Your task to perform on an android device: turn off location Image 0: 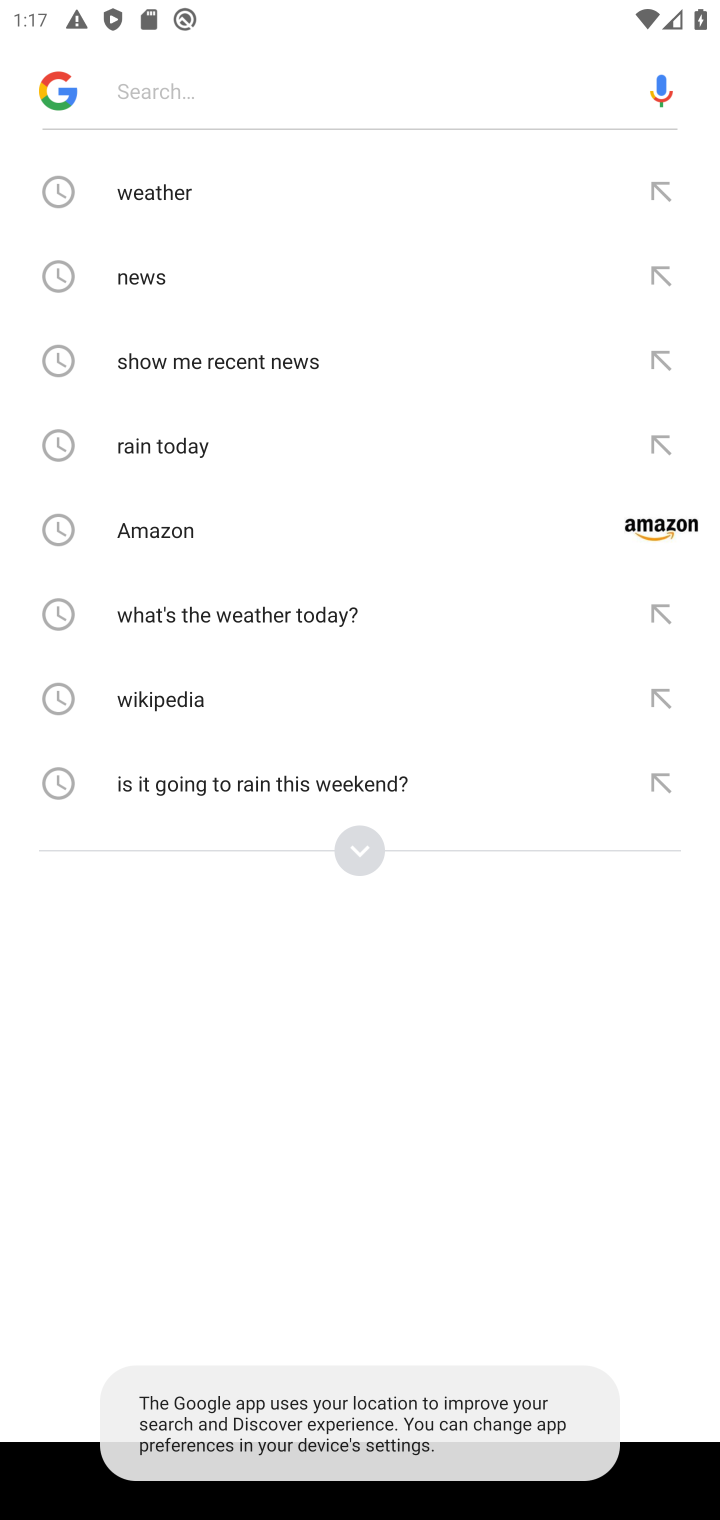
Step 0: press home button
Your task to perform on an android device: turn off location Image 1: 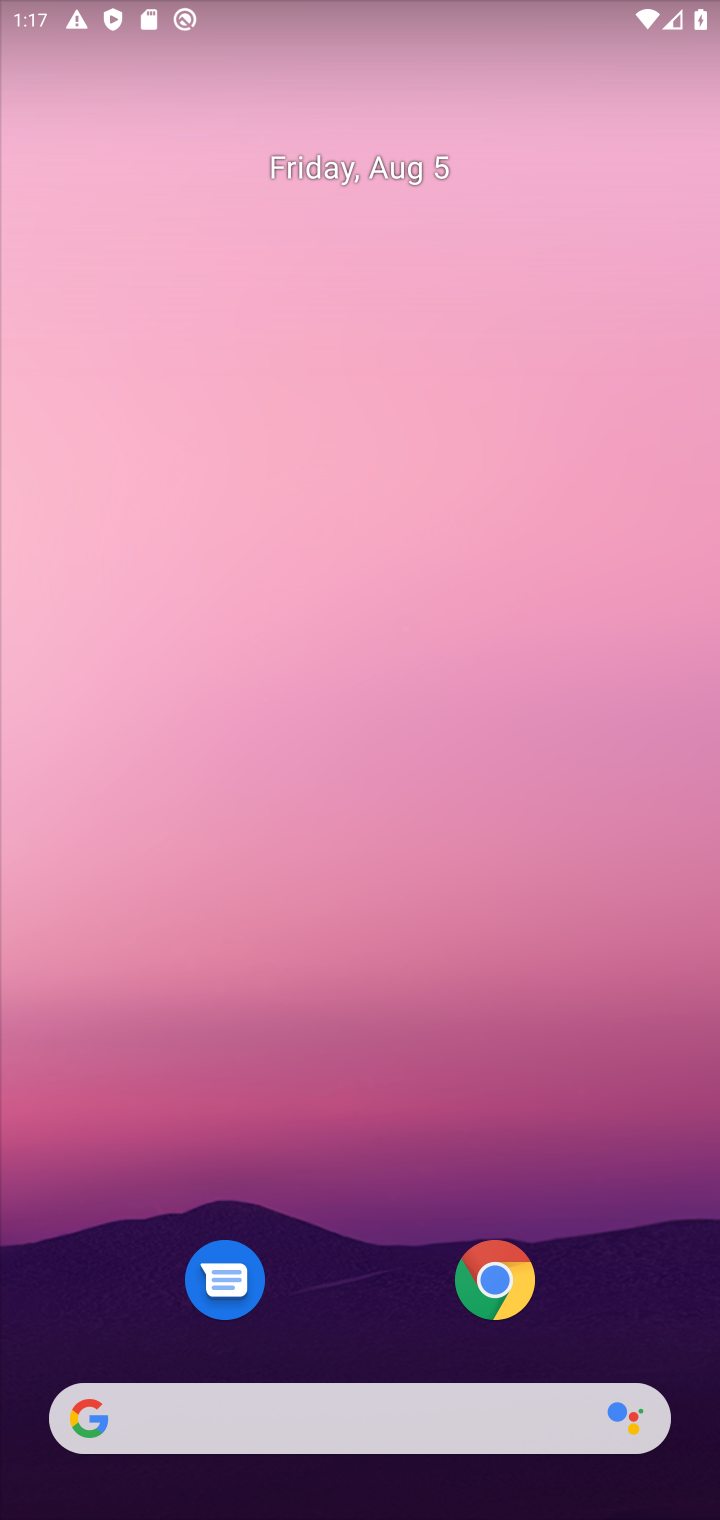
Step 1: drag from (382, 87) to (445, 48)
Your task to perform on an android device: turn off location Image 2: 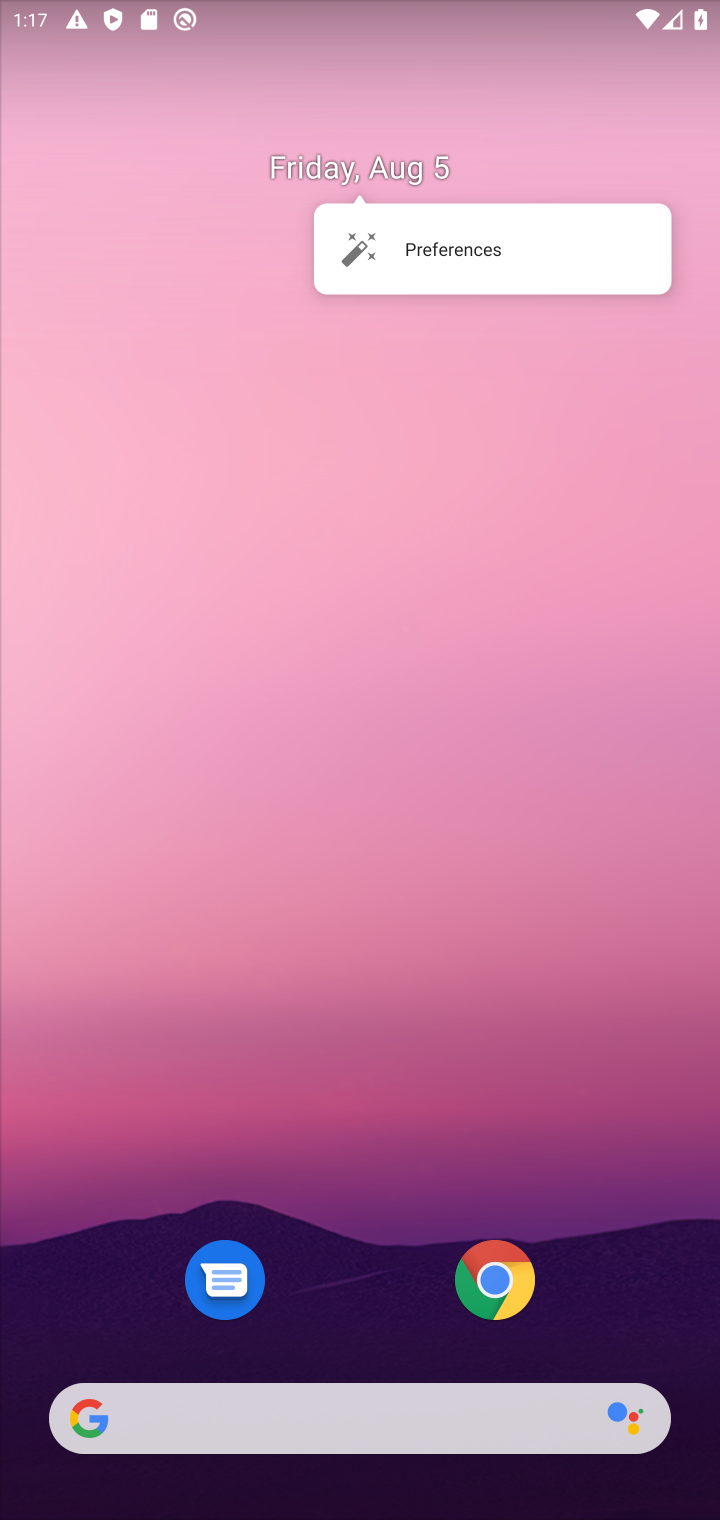
Step 2: click (55, 261)
Your task to perform on an android device: turn off location Image 3: 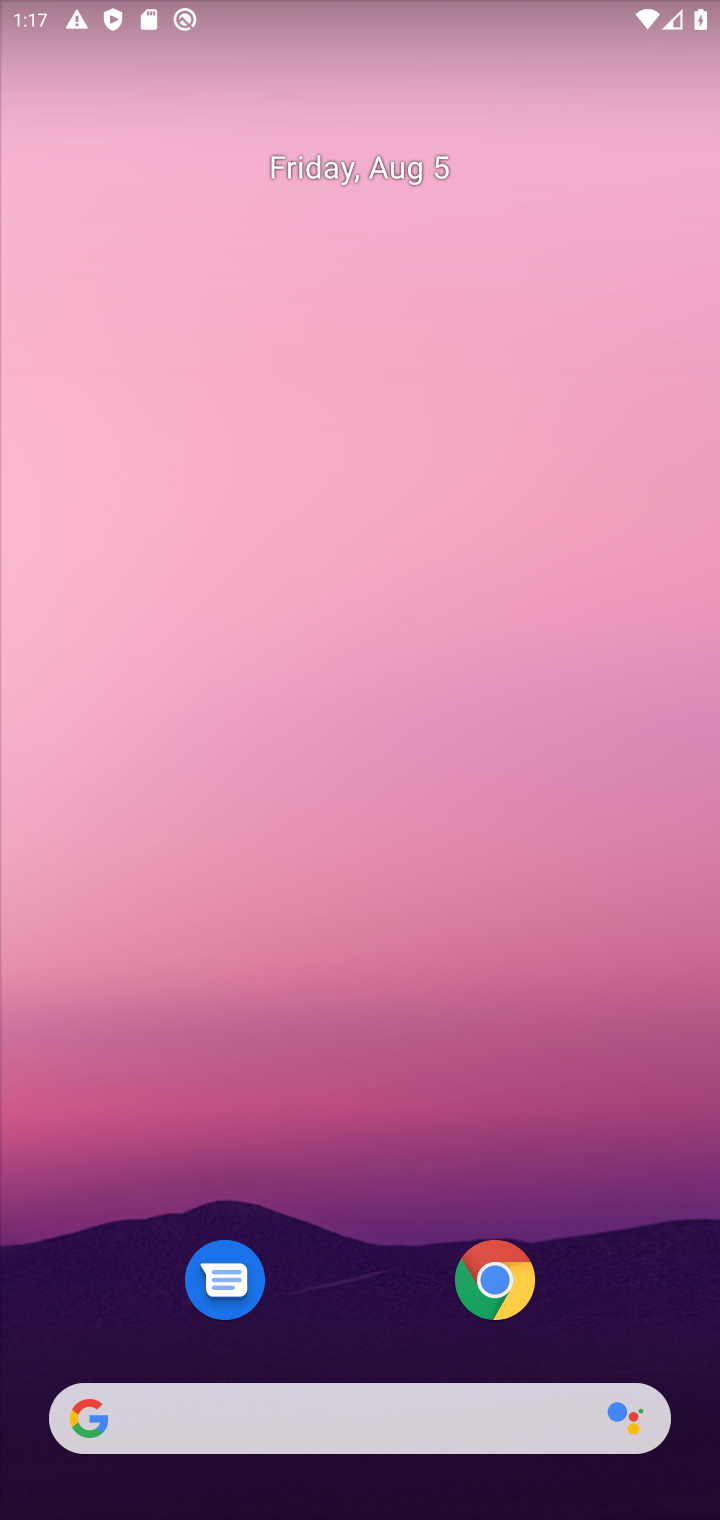
Step 3: click (379, 379)
Your task to perform on an android device: turn off location Image 4: 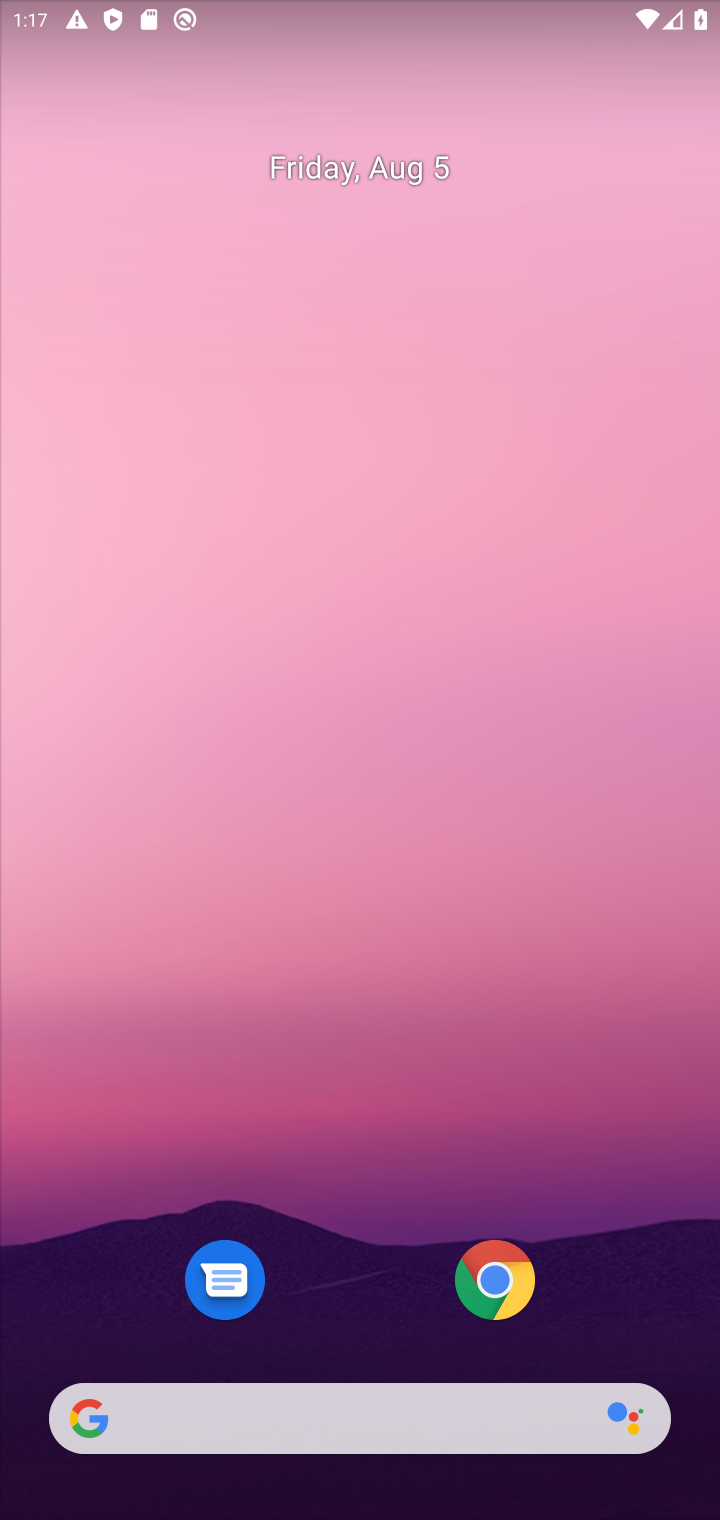
Step 4: drag from (328, 1190) to (391, 414)
Your task to perform on an android device: turn off location Image 5: 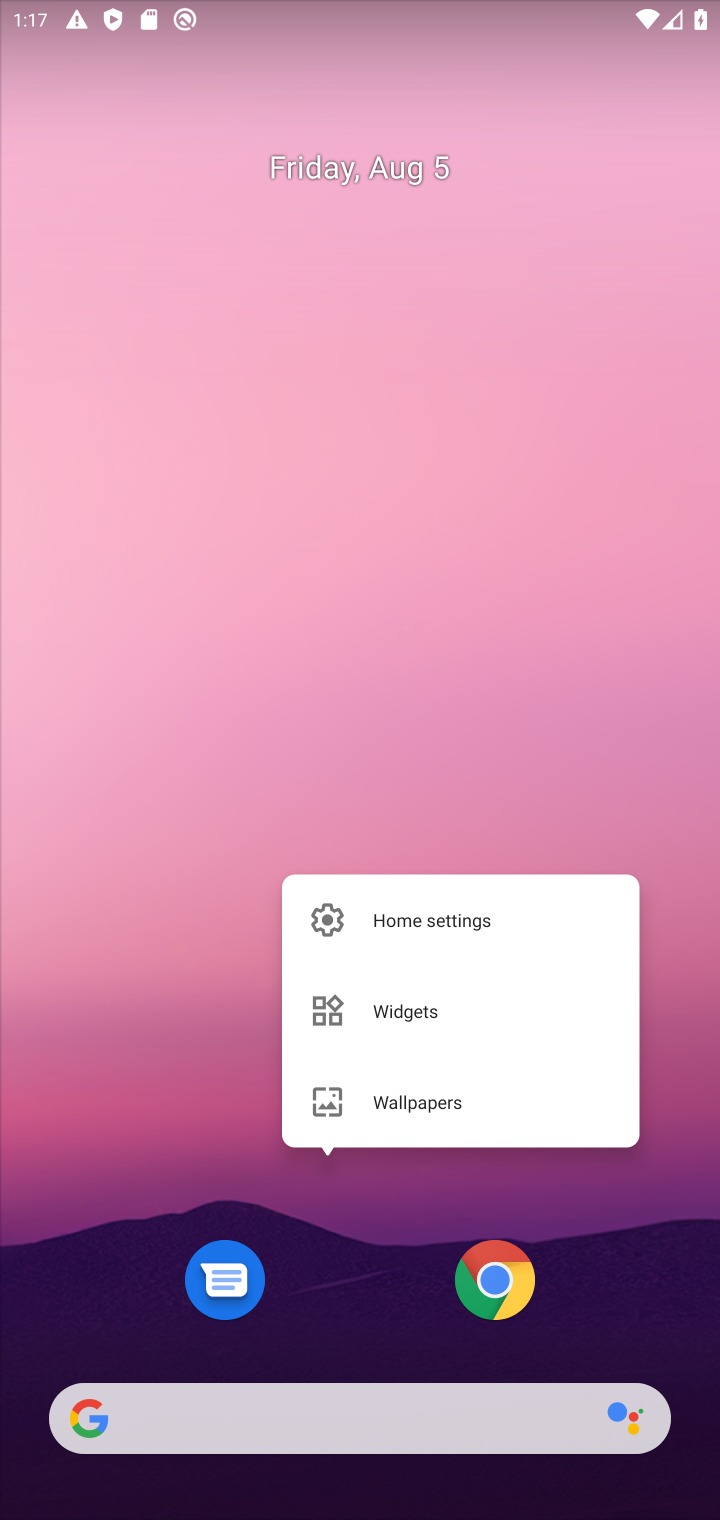
Step 5: click (195, 690)
Your task to perform on an android device: turn off location Image 6: 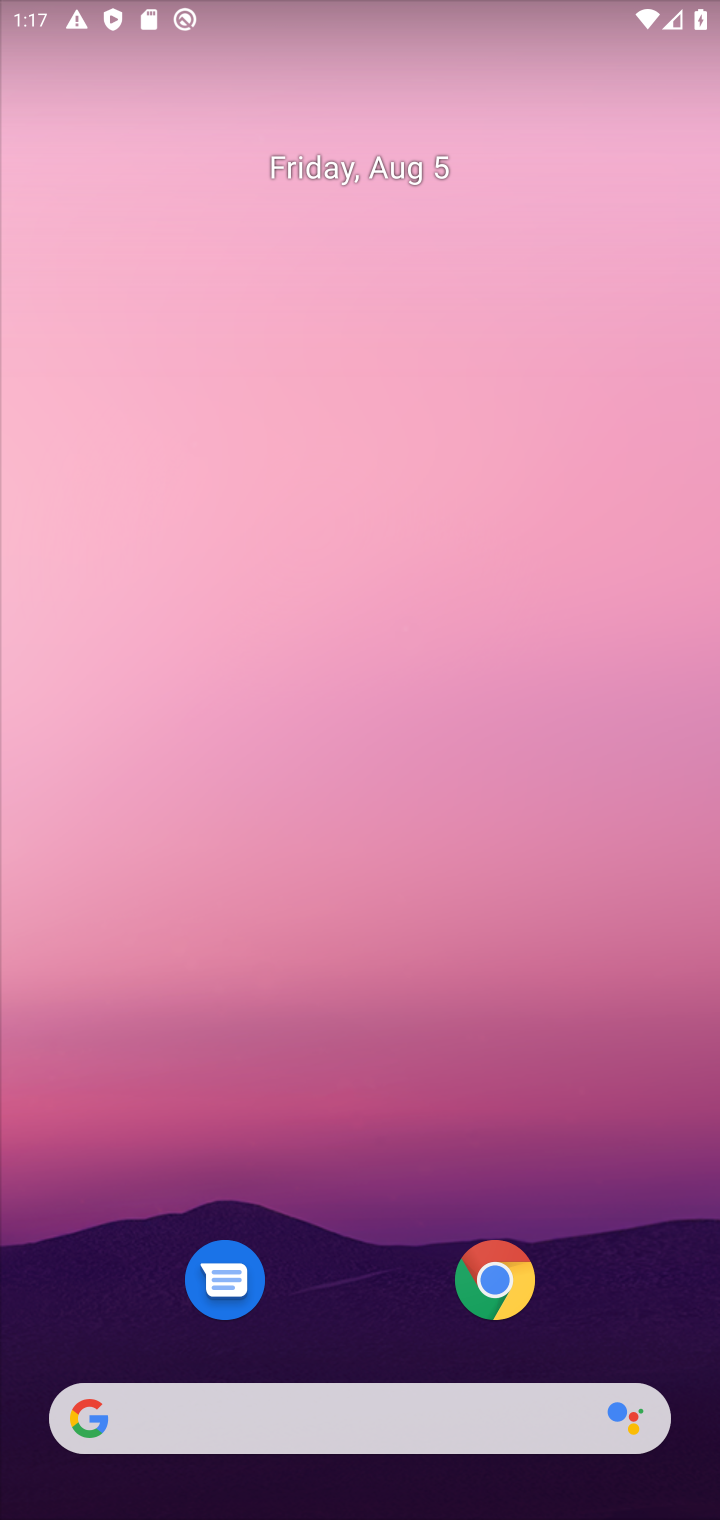
Step 6: drag from (355, 446) to (364, 293)
Your task to perform on an android device: turn off location Image 7: 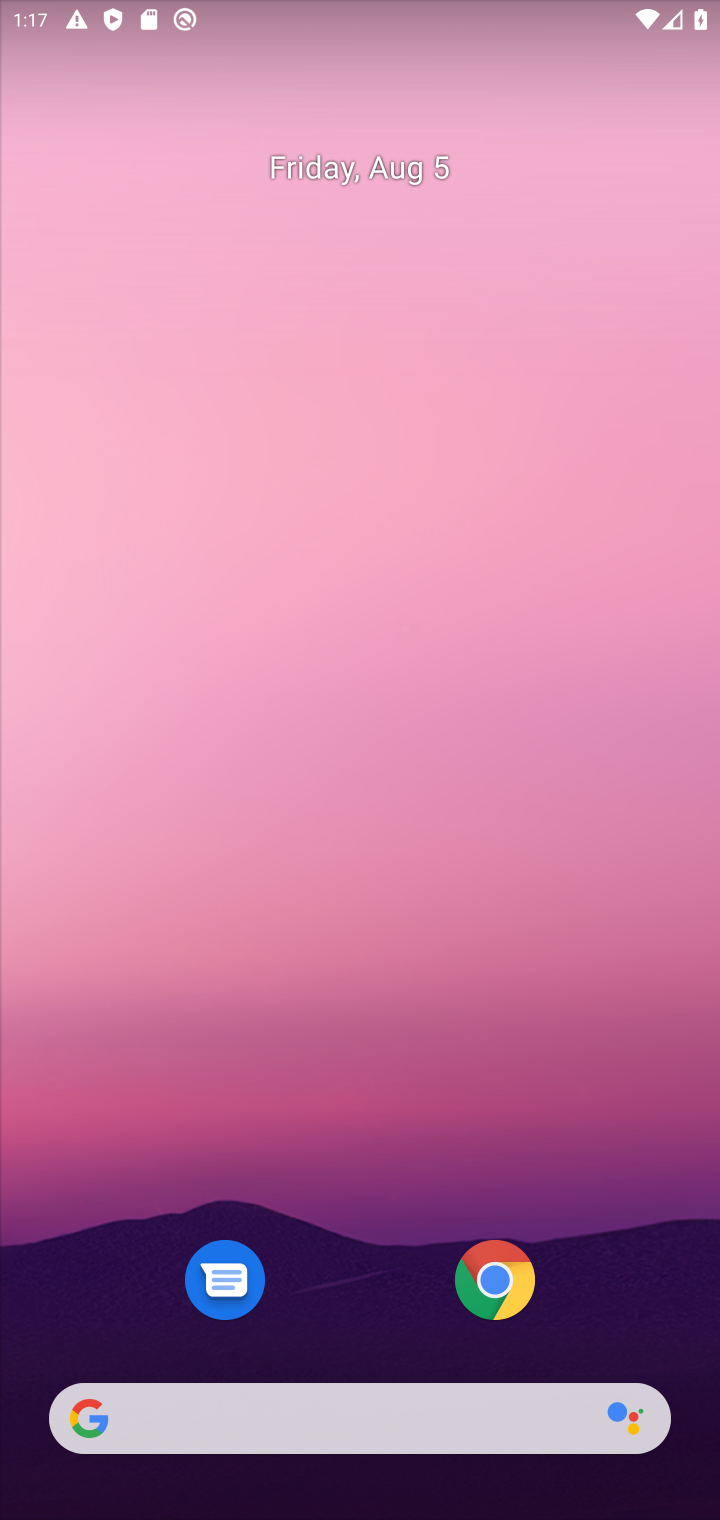
Step 7: drag from (363, 1030) to (381, 182)
Your task to perform on an android device: turn off location Image 8: 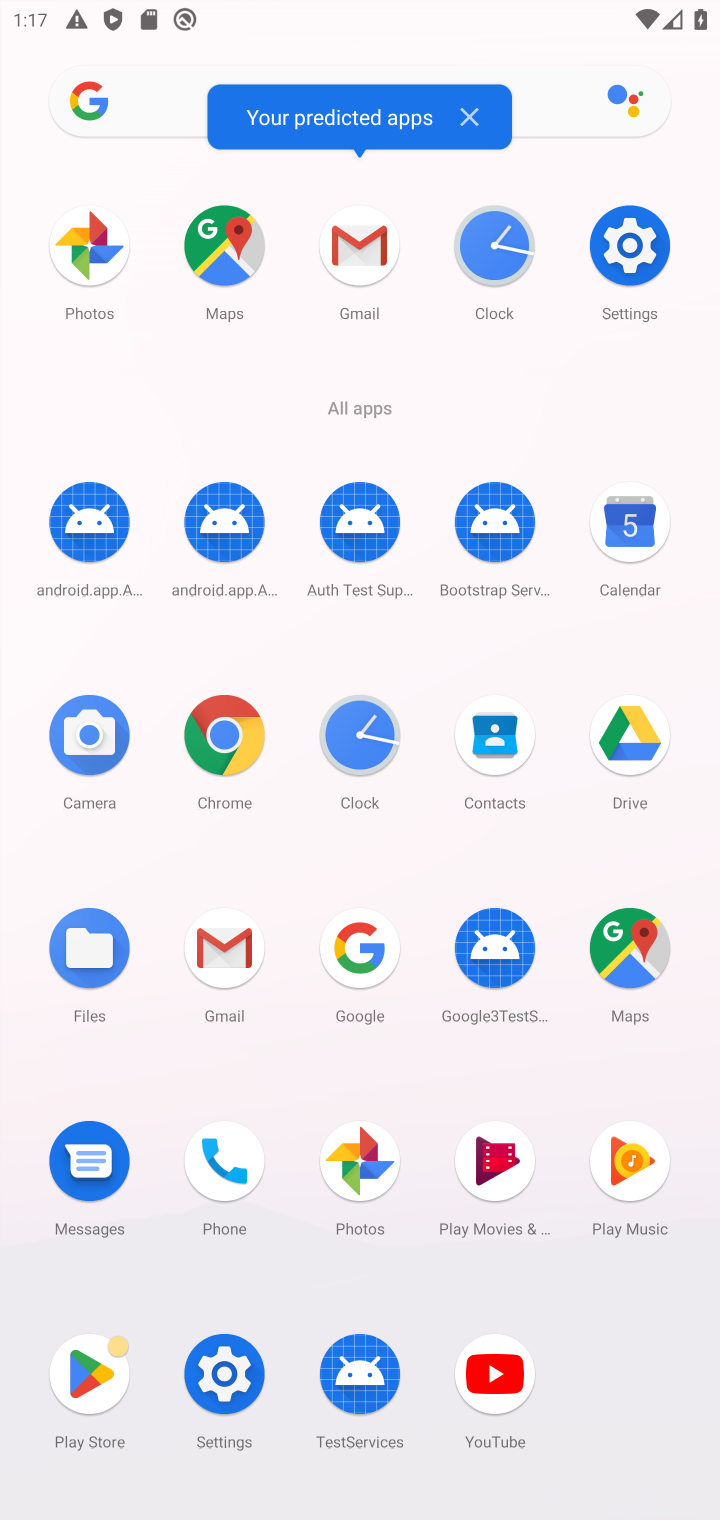
Step 8: click (622, 251)
Your task to perform on an android device: turn off location Image 9: 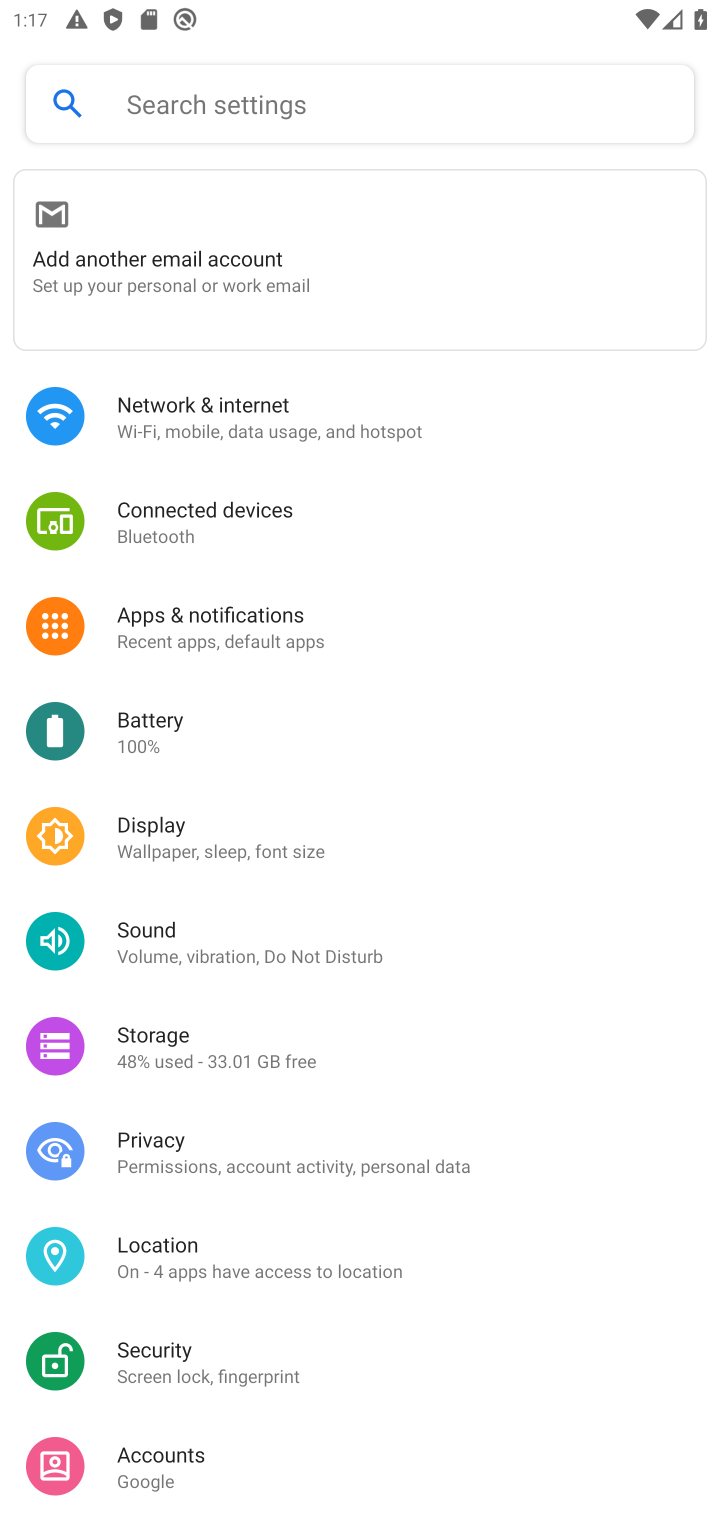
Step 9: click (186, 1241)
Your task to perform on an android device: turn off location Image 10: 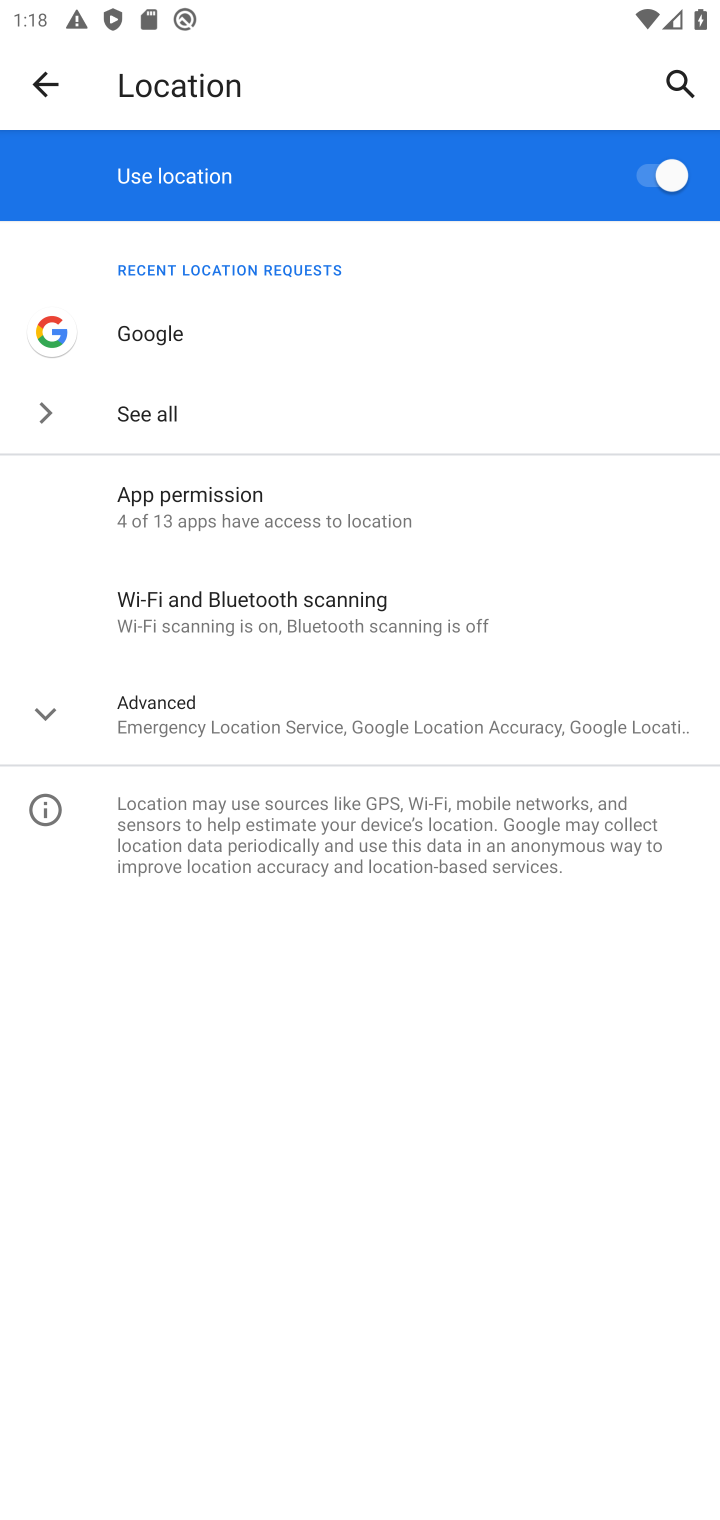
Step 10: click (651, 181)
Your task to perform on an android device: turn off location Image 11: 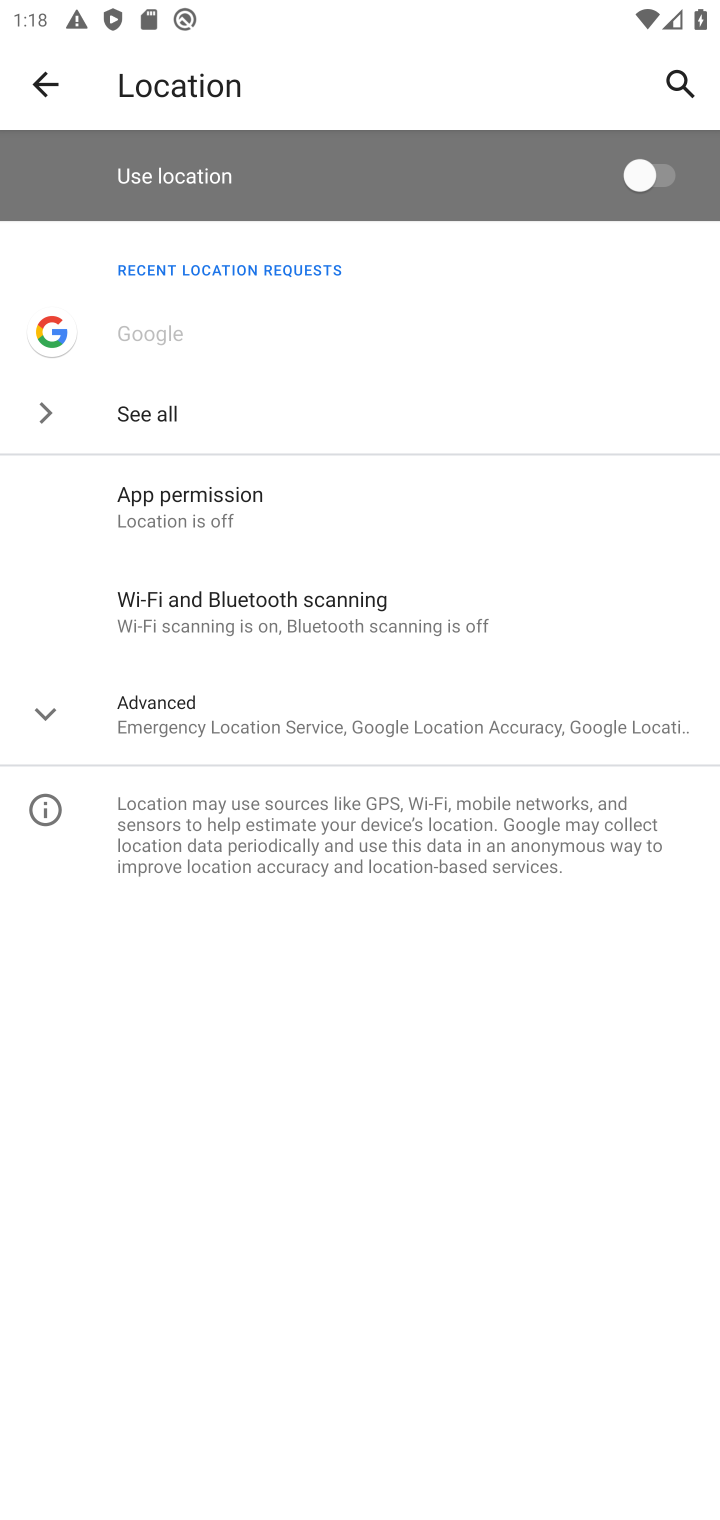
Step 11: task complete